Your task to perform on an android device: When is my next meeting? Image 0: 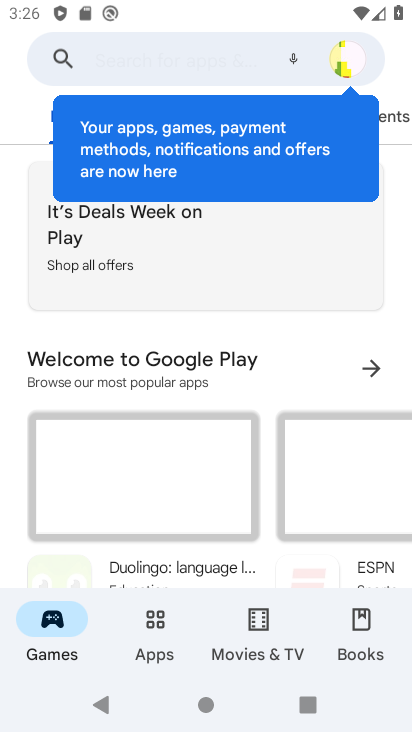
Step 0: press home button
Your task to perform on an android device: When is my next meeting? Image 1: 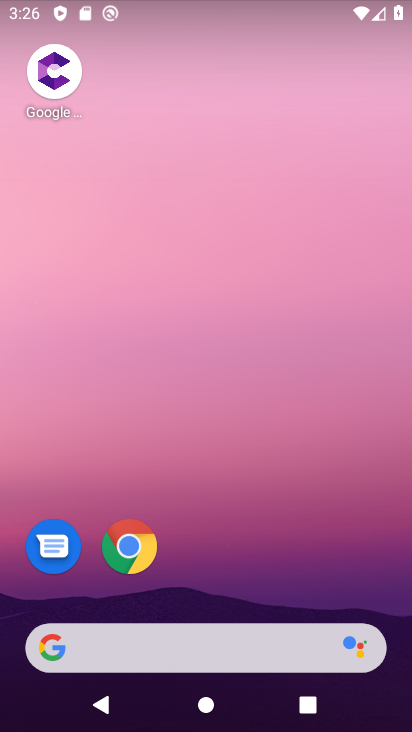
Step 1: drag from (395, 515) to (341, 145)
Your task to perform on an android device: When is my next meeting? Image 2: 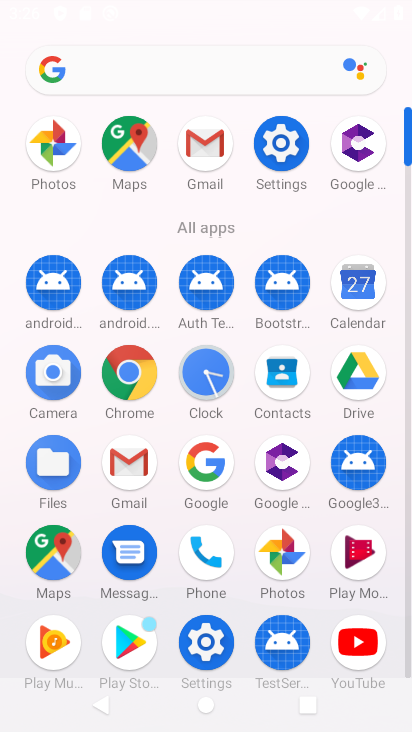
Step 2: click (347, 289)
Your task to perform on an android device: When is my next meeting? Image 3: 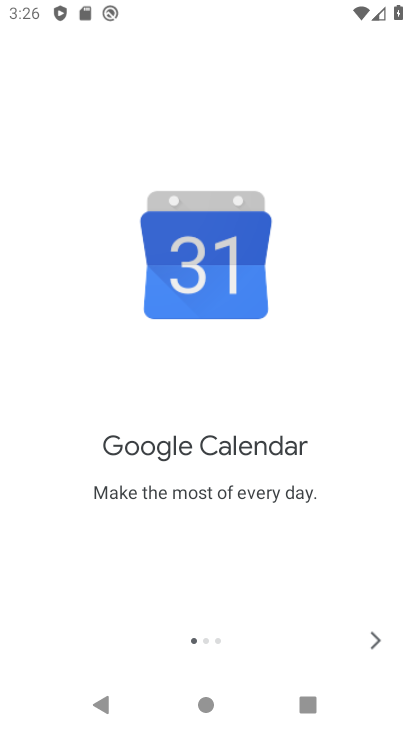
Step 3: click (379, 639)
Your task to perform on an android device: When is my next meeting? Image 4: 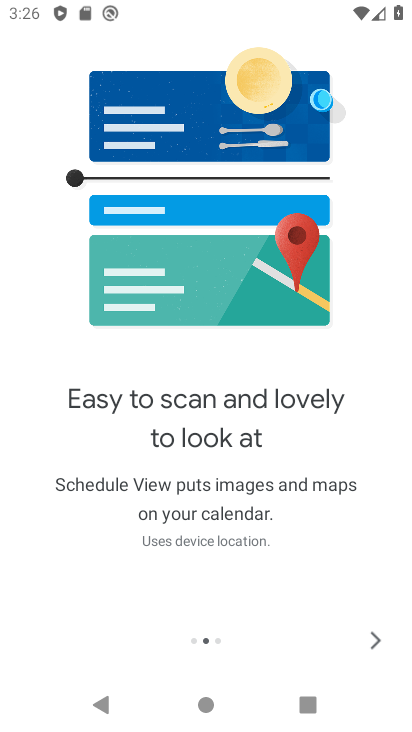
Step 4: click (379, 639)
Your task to perform on an android device: When is my next meeting? Image 5: 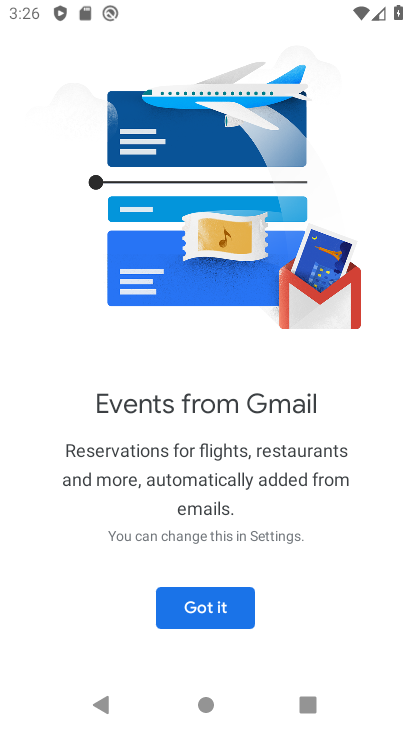
Step 5: click (219, 591)
Your task to perform on an android device: When is my next meeting? Image 6: 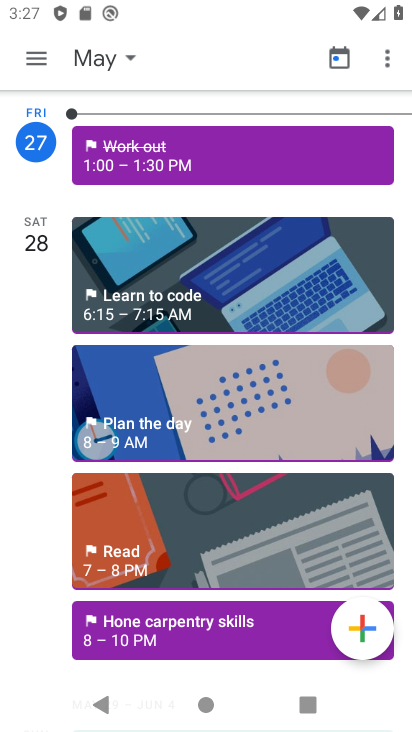
Step 6: click (38, 56)
Your task to perform on an android device: When is my next meeting? Image 7: 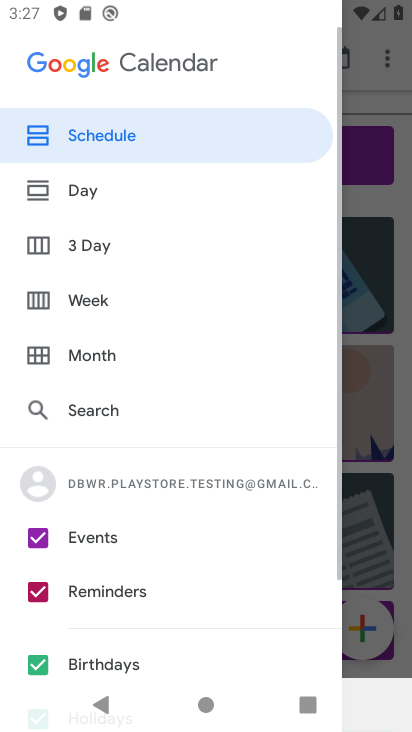
Step 7: click (26, 669)
Your task to perform on an android device: When is my next meeting? Image 8: 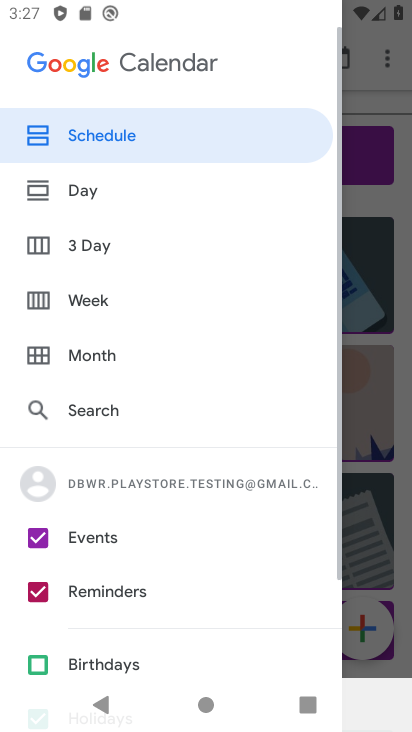
Step 8: click (42, 592)
Your task to perform on an android device: When is my next meeting? Image 9: 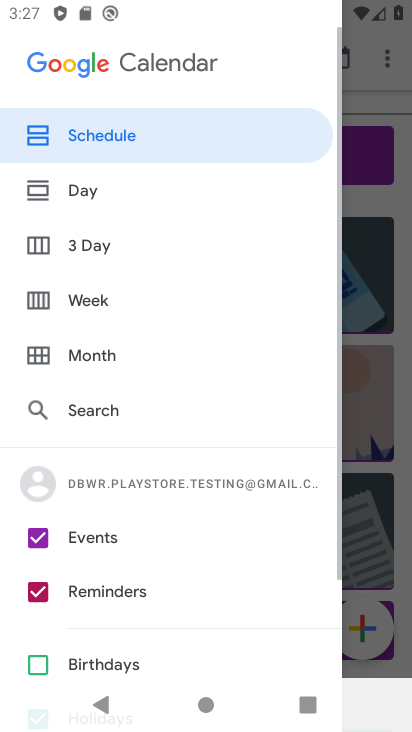
Step 9: drag from (165, 654) to (207, 446)
Your task to perform on an android device: When is my next meeting? Image 10: 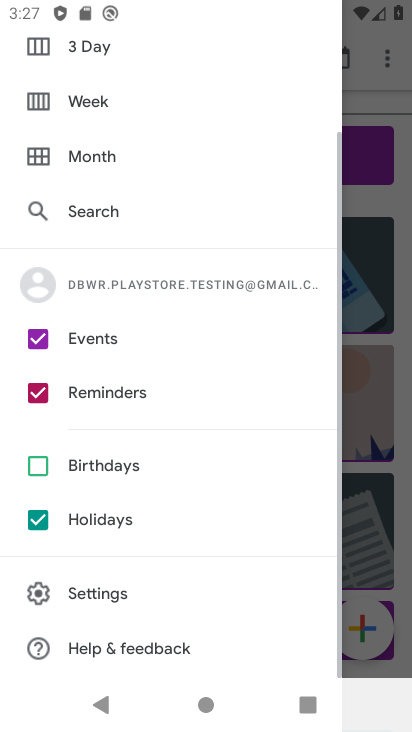
Step 10: click (36, 389)
Your task to perform on an android device: When is my next meeting? Image 11: 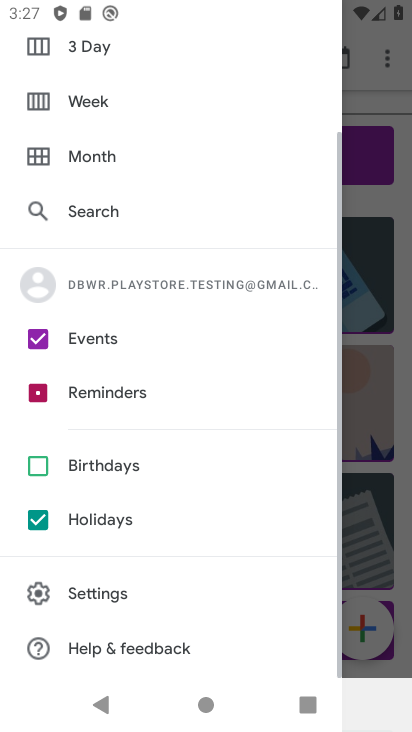
Step 11: click (31, 510)
Your task to perform on an android device: When is my next meeting? Image 12: 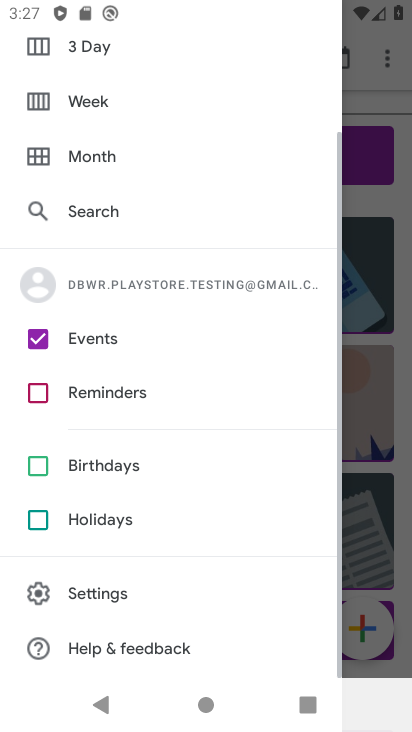
Step 12: drag from (215, 226) to (219, 561)
Your task to perform on an android device: When is my next meeting? Image 13: 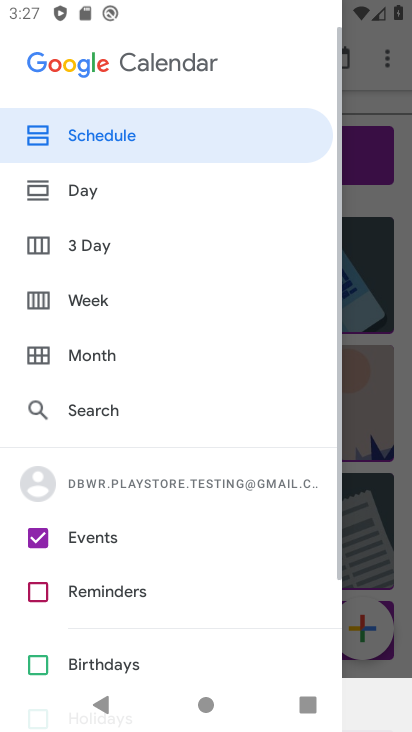
Step 13: click (107, 134)
Your task to perform on an android device: When is my next meeting? Image 14: 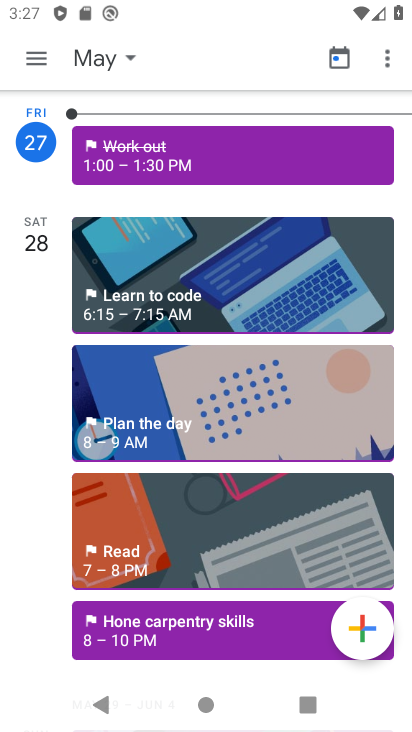
Step 14: task complete